Your task to perform on an android device: Search for pizza restaurants on Maps Image 0: 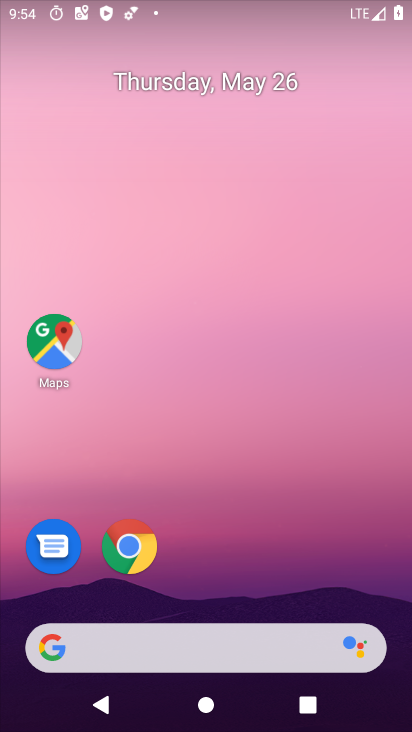
Step 0: drag from (355, 576) to (287, 76)
Your task to perform on an android device: Search for pizza restaurants on Maps Image 1: 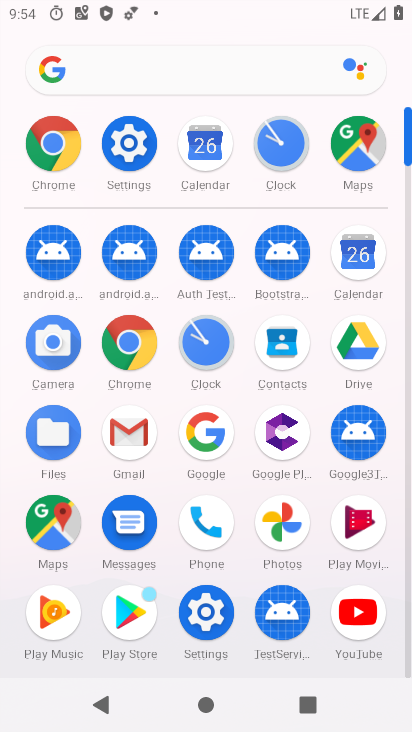
Step 1: click (50, 536)
Your task to perform on an android device: Search for pizza restaurants on Maps Image 2: 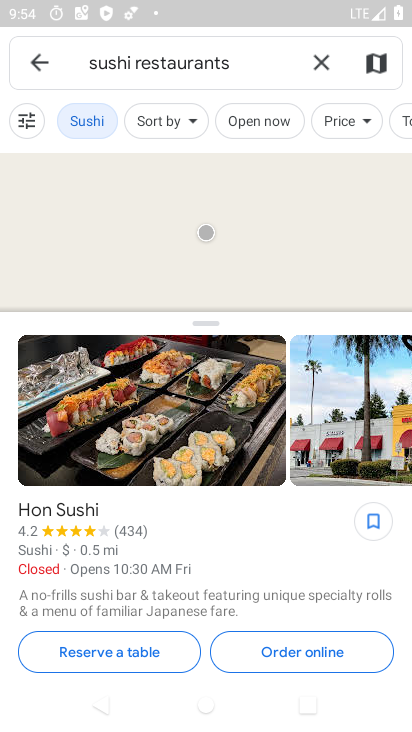
Step 2: click (330, 68)
Your task to perform on an android device: Search for pizza restaurants on Maps Image 3: 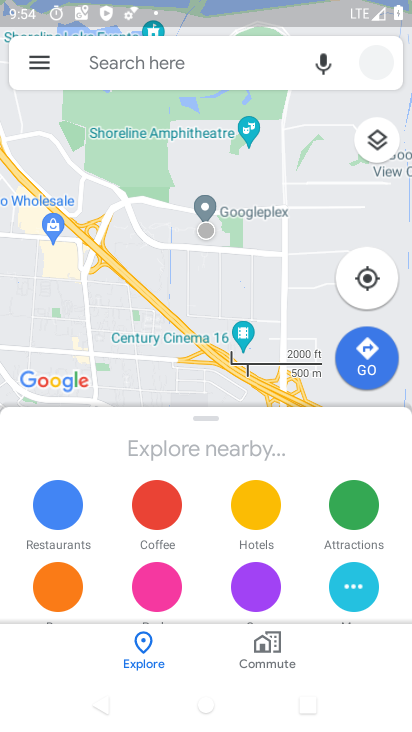
Step 3: click (238, 64)
Your task to perform on an android device: Search for pizza restaurants on Maps Image 4: 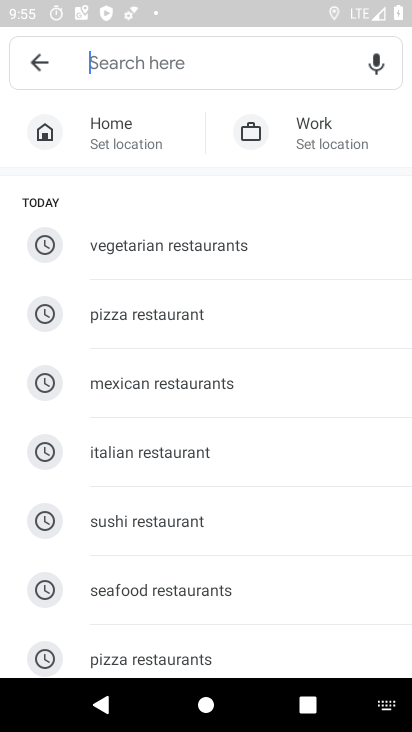
Step 4: click (128, 313)
Your task to perform on an android device: Search for pizza restaurants on Maps Image 5: 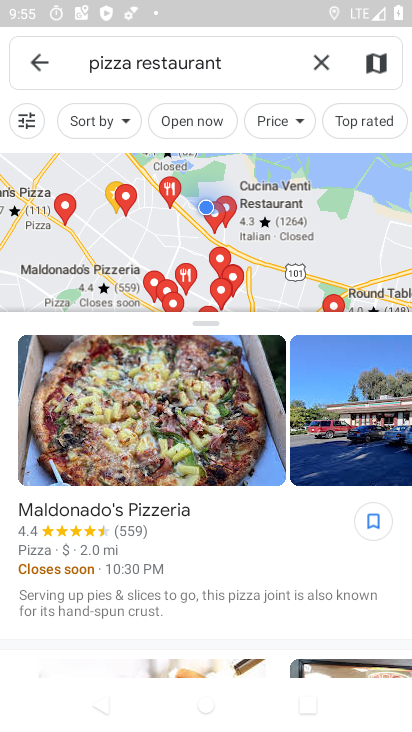
Step 5: task complete